Your task to perform on an android device: Add "lenovo thinkpad" to the cart on bestbuy, then select checkout. Image 0: 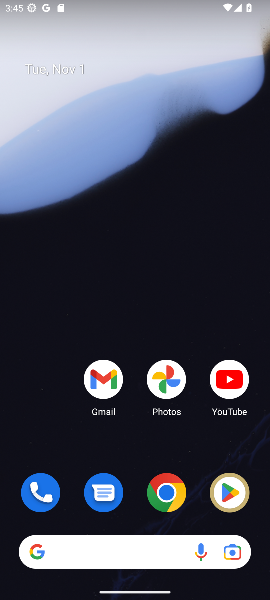
Step 0: click (167, 494)
Your task to perform on an android device: Add "lenovo thinkpad" to the cart on bestbuy, then select checkout. Image 1: 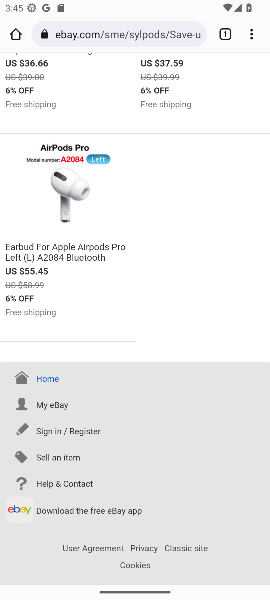
Step 1: click (136, 36)
Your task to perform on an android device: Add "lenovo thinkpad" to the cart on bestbuy, then select checkout. Image 2: 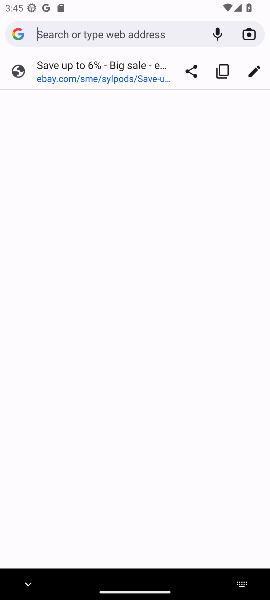
Step 2: type "bestbuy"
Your task to perform on an android device: Add "lenovo thinkpad" to the cart on bestbuy, then select checkout. Image 3: 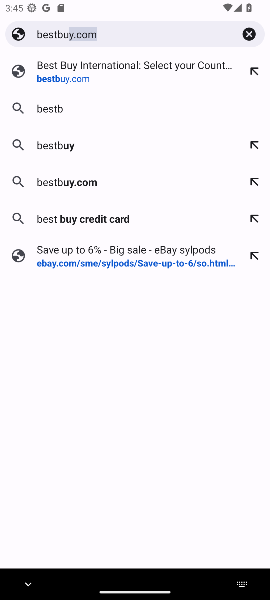
Step 3: type ""
Your task to perform on an android device: Add "lenovo thinkpad" to the cart on bestbuy, then select checkout. Image 4: 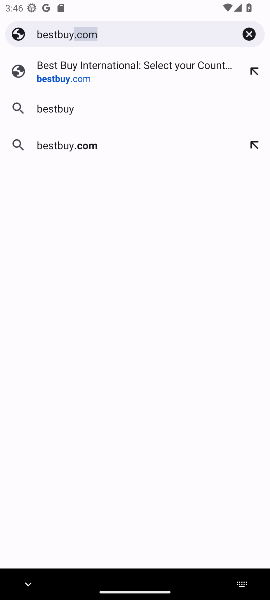
Step 4: click (77, 69)
Your task to perform on an android device: Add "lenovo thinkpad" to the cart on bestbuy, then select checkout. Image 5: 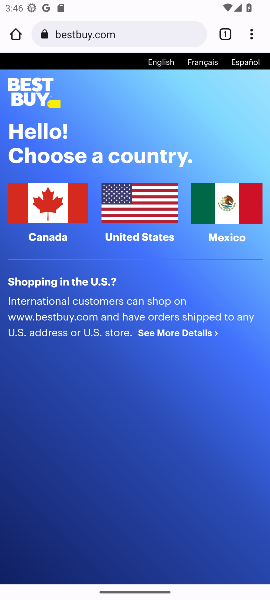
Step 5: click (141, 224)
Your task to perform on an android device: Add "lenovo thinkpad" to the cart on bestbuy, then select checkout. Image 6: 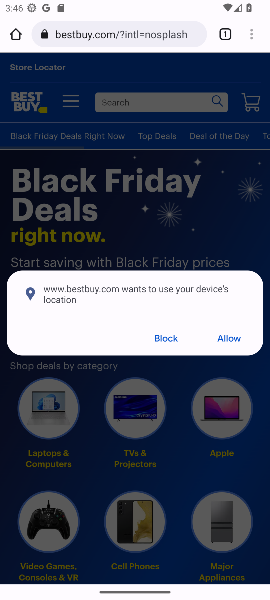
Step 6: click (141, 106)
Your task to perform on an android device: Add "lenovo thinkpad" to the cart on bestbuy, then select checkout. Image 7: 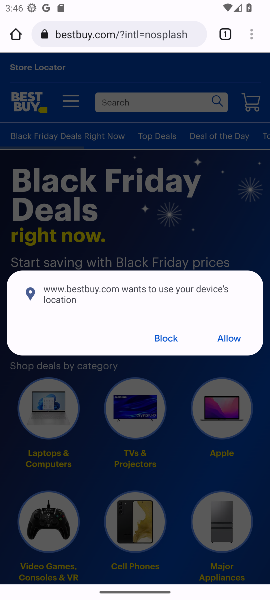
Step 7: click (162, 333)
Your task to perform on an android device: Add "lenovo thinkpad" to the cart on bestbuy, then select checkout. Image 8: 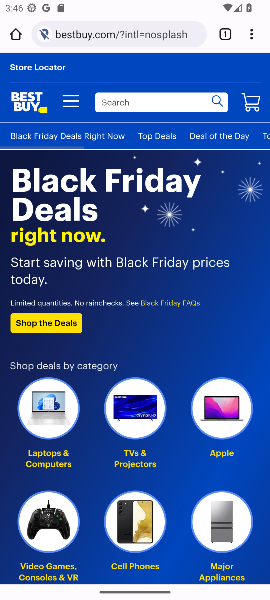
Step 8: click (159, 103)
Your task to perform on an android device: Add "lenovo thinkpad" to the cart on bestbuy, then select checkout. Image 9: 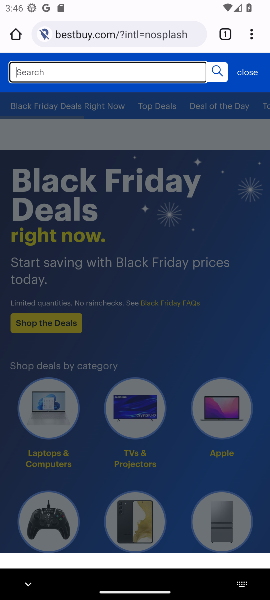
Step 9: type "lenovo thinkpad"
Your task to perform on an android device: Add "lenovo thinkpad" to the cart on bestbuy, then select checkout. Image 10: 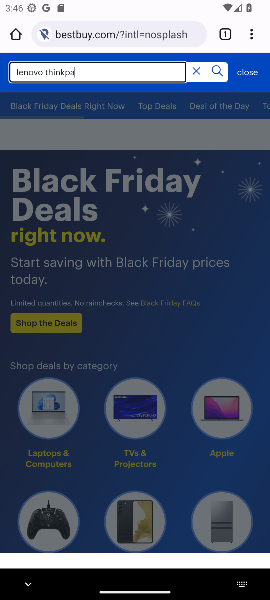
Step 10: type ""
Your task to perform on an android device: Add "lenovo thinkpad" to the cart on bestbuy, then select checkout. Image 11: 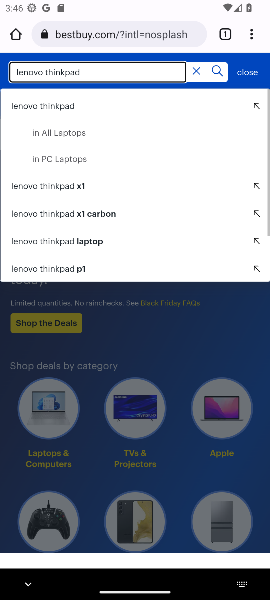
Step 11: click (59, 111)
Your task to perform on an android device: Add "lenovo thinkpad" to the cart on bestbuy, then select checkout. Image 12: 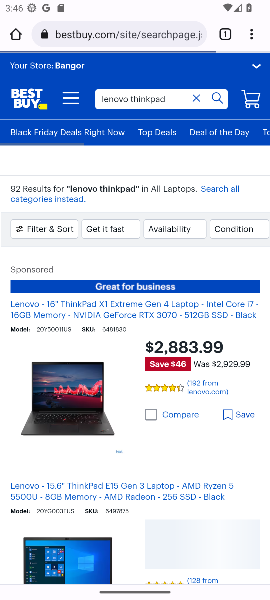
Step 12: click (166, 317)
Your task to perform on an android device: Add "lenovo thinkpad" to the cart on bestbuy, then select checkout. Image 13: 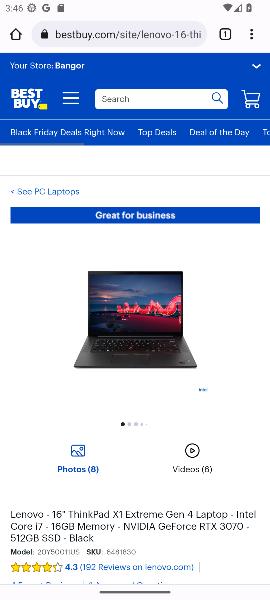
Step 13: drag from (159, 405) to (177, 185)
Your task to perform on an android device: Add "lenovo thinkpad" to the cart on bestbuy, then select checkout. Image 14: 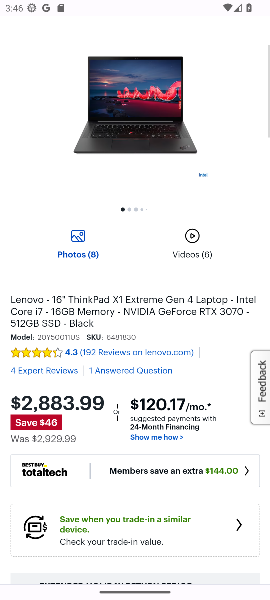
Step 14: drag from (147, 380) to (145, 147)
Your task to perform on an android device: Add "lenovo thinkpad" to the cart on bestbuy, then select checkout. Image 15: 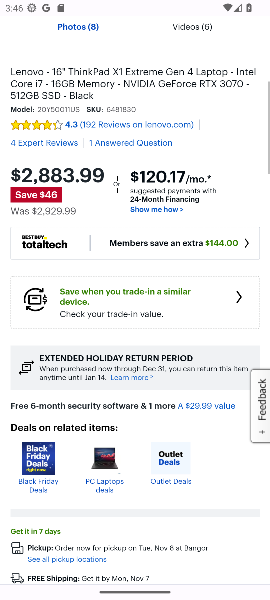
Step 15: click (148, 167)
Your task to perform on an android device: Add "lenovo thinkpad" to the cart on bestbuy, then select checkout. Image 16: 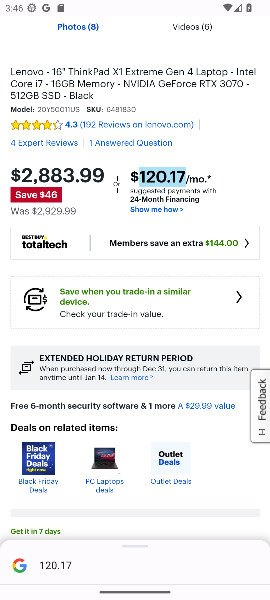
Step 16: drag from (152, 396) to (160, 179)
Your task to perform on an android device: Add "lenovo thinkpad" to the cart on bestbuy, then select checkout. Image 17: 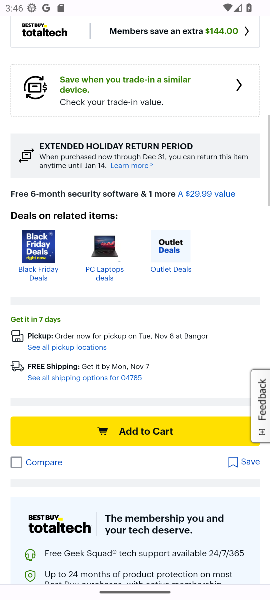
Step 17: drag from (139, 465) to (146, 381)
Your task to perform on an android device: Add "lenovo thinkpad" to the cart on bestbuy, then select checkout. Image 18: 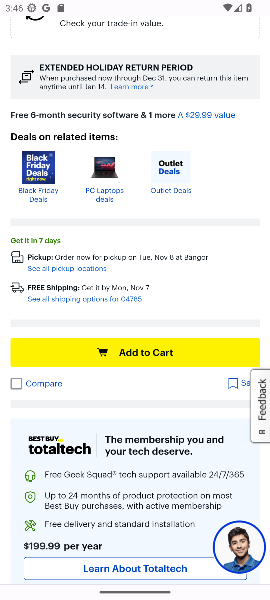
Step 18: click (141, 356)
Your task to perform on an android device: Add "lenovo thinkpad" to the cart on bestbuy, then select checkout. Image 19: 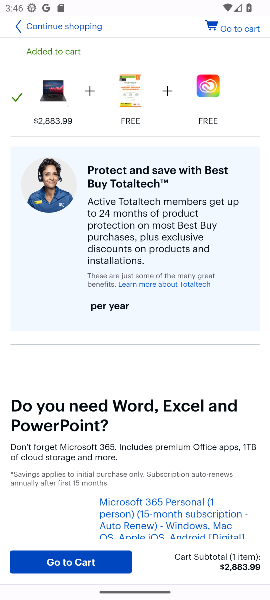
Step 19: drag from (171, 431) to (188, 209)
Your task to perform on an android device: Add "lenovo thinkpad" to the cart on bestbuy, then select checkout. Image 20: 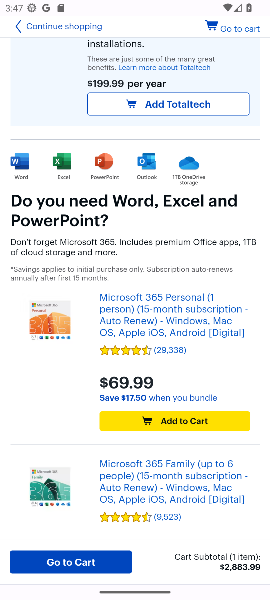
Step 20: click (66, 557)
Your task to perform on an android device: Add "lenovo thinkpad" to the cart on bestbuy, then select checkout. Image 21: 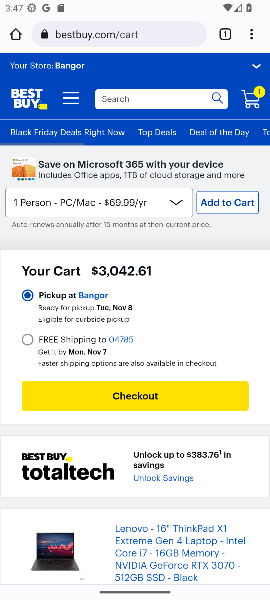
Step 21: click (116, 398)
Your task to perform on an android device: Add "lenovo thinkpad" to the cart on bestbuy, then select checkout. Image 22: 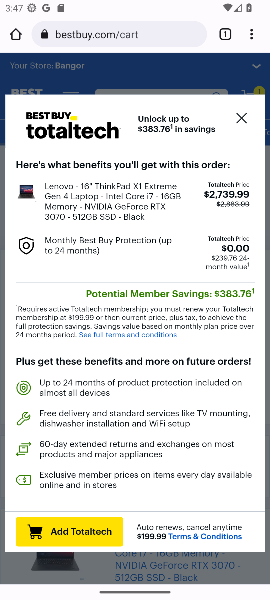
Step 22: click (102, 523)
Your task to perform on an android device: Add "lenovo thinkpad" to the cart on bestbuy, then select checkout. Image 23: 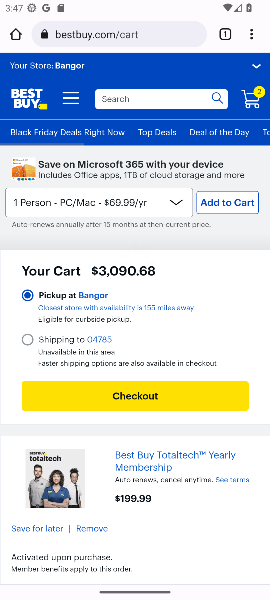
Step 23: click (117, 407)
Your task to perform on an android device: Add "lenovo thinkpad" to the cart on bestbuy, then select checkout. Image 24: 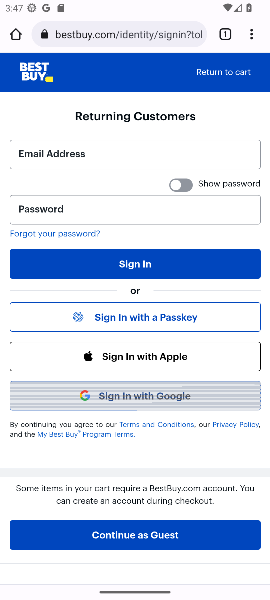
Step 24: click (110, 525)
Your task to perform on an android device: Add "lenovo thinkpad" to the cart on bestbuy, then select checkout. Image 25: 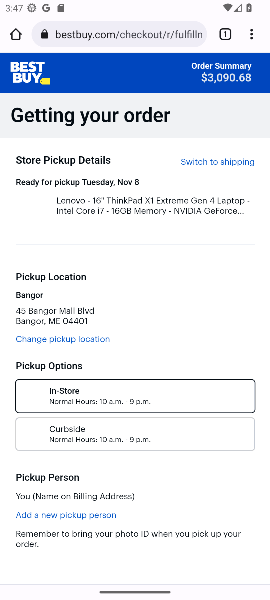
Step 25: task complete